Your task to perform on an android device: toggle location history Image 0: 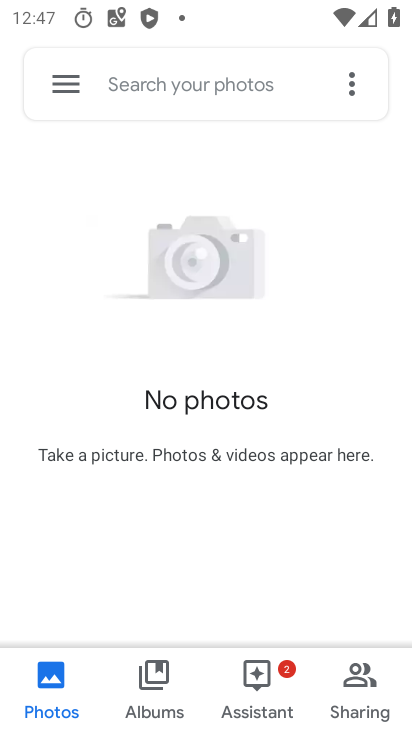
Step 0: press back button
Your task to perform on an android device: toggle location history Image 1: 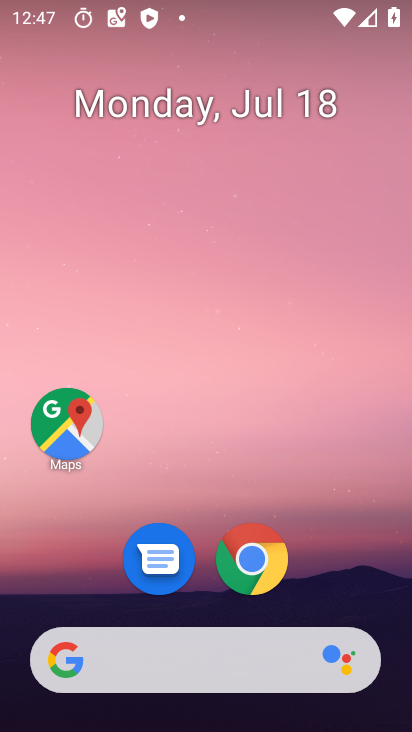
Step 1: drag from (75, 550) to (179, 28)
Your task to perform on an android device: toggle location history Image 2: 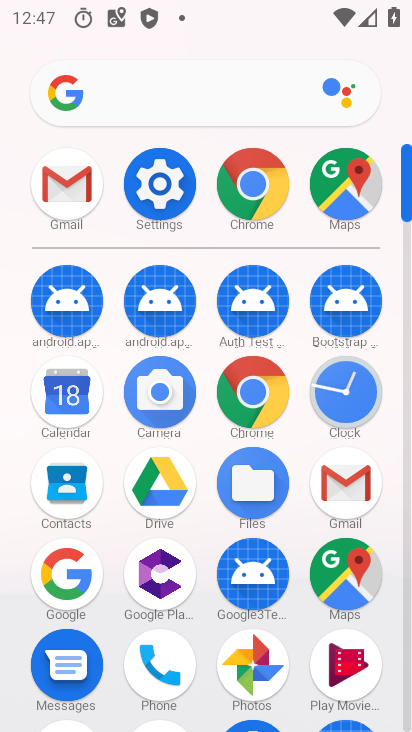
Step 2: click (148, 185)
Your task to perform on an android device: toggle location history Image 3: 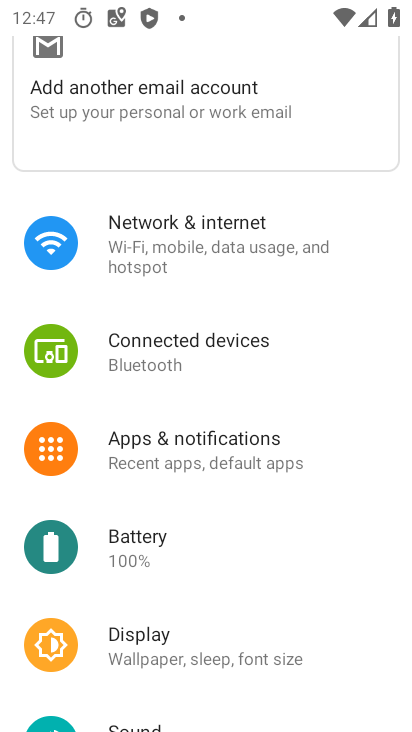
Step 3: drag from (205, 658) to (308, 39)
Your task to perform on an android device: toggle location history Image 4: 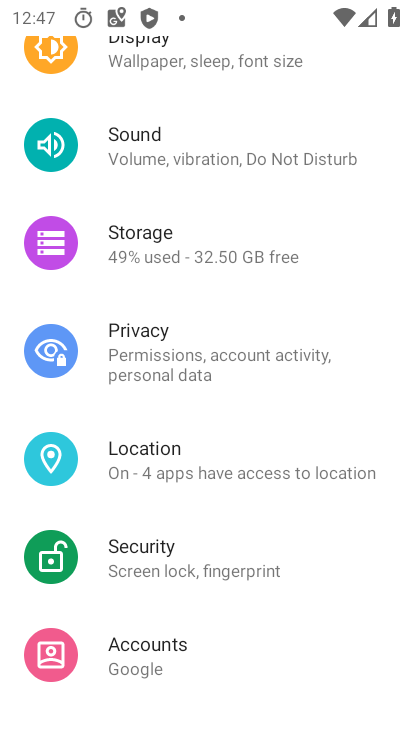
Step 4: click (176, 472)
Your task to perform on an android device: toggle location history Image 5: 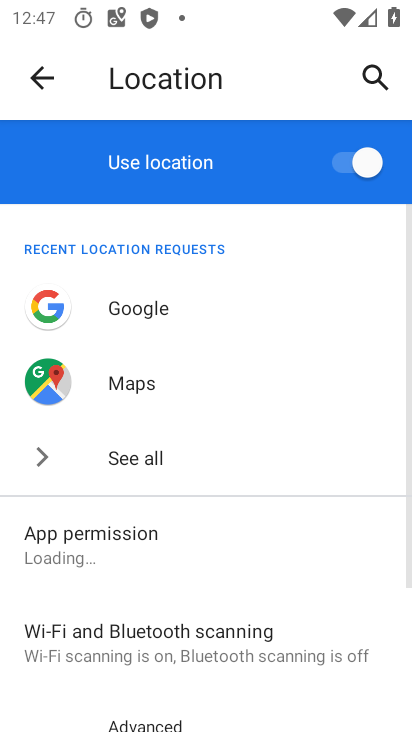
Step 5: drag from (251, 582) to (343, 14)
Your task to perform on an android device: toggle location history Image 6: 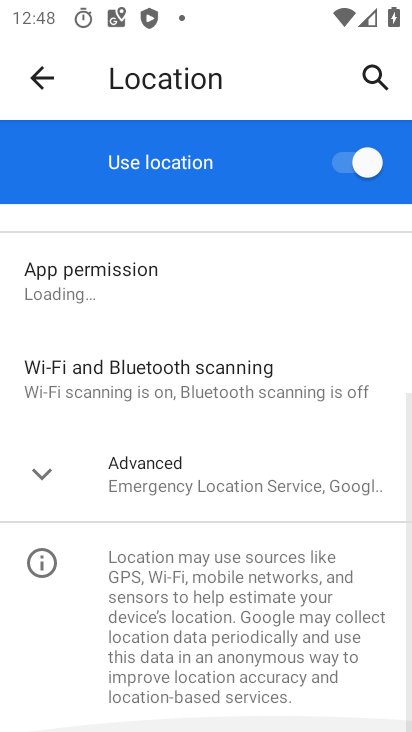
Step 6: click (159, 490)
Your task to perform on an android device: toggle location history Image 7: 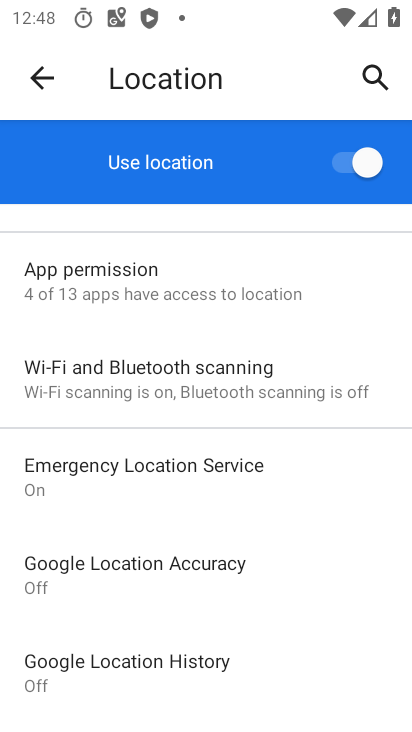
Step 7: click (126, 670)
Your task to perform on an android device: toggle location history Image 8: 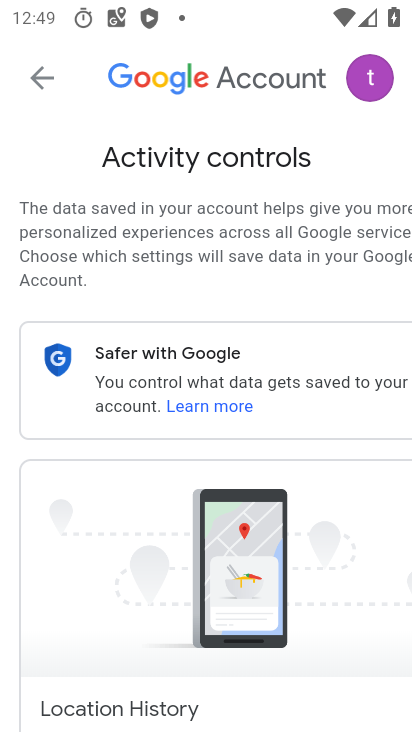
Step 8: drag from (249, 572) to (165, 30)
Your task to perform on an android device: toggle location history Image 9: 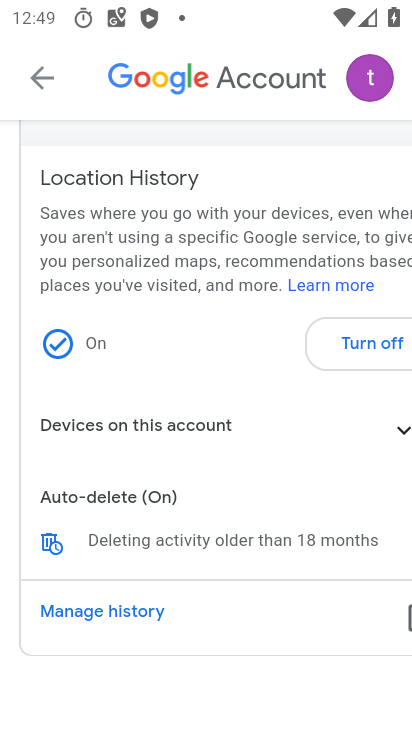
Step 9: click (357, 342)
Your task to perform on an android device: toggle location history Image 10: 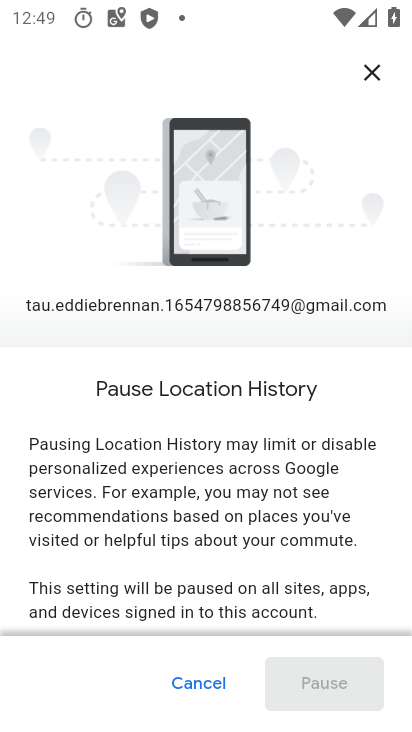
Step 10: drag from (182, 605) to (194, 12)
Your task to perform on an android device: toggle location history Image 11: 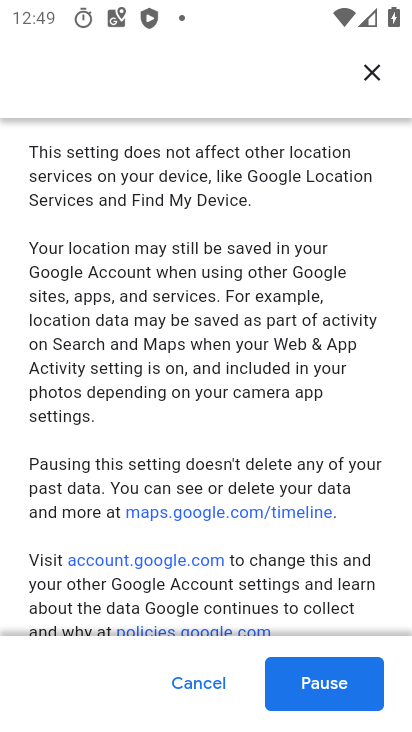
Step 11: click (305, 686)
Your task to perform on an android device: toggle location history Image 12: 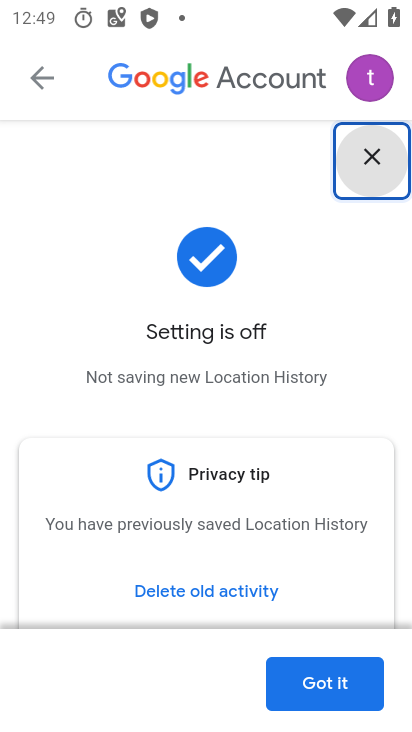
Step 12: click (302, 688)
Your task to perform on an android device: toggle location history Image 13: 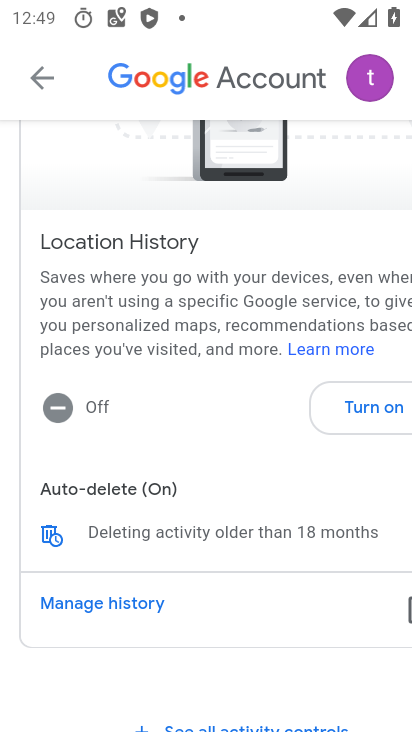
Step 13: task complete